Your task to perform on an android device: Search for Mexican restaurants on Maps Image 0: 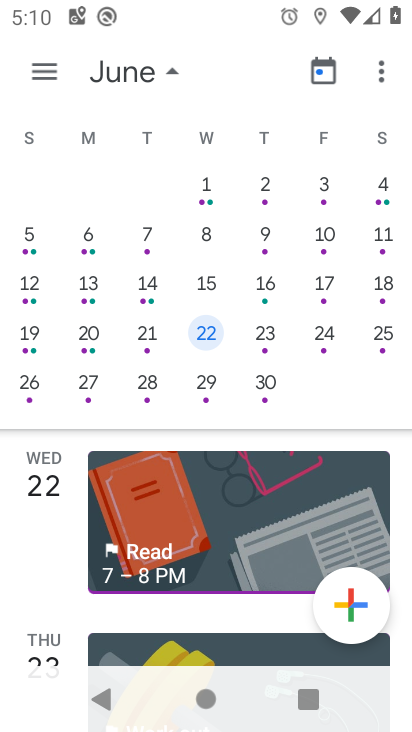
Step 0: press home button
Your task to perform on an android device: Search for Mexican restaurants on Maps Image 1: 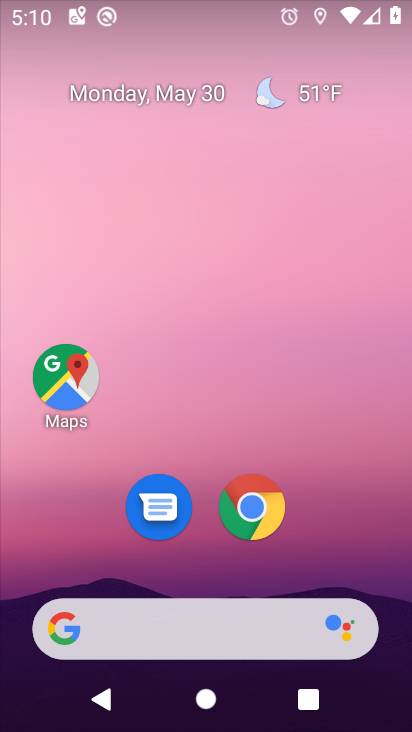
Step 1: click (68, 350)
Your task to perform on an android device: Search for Mexican restaurants on Maps Image 2: 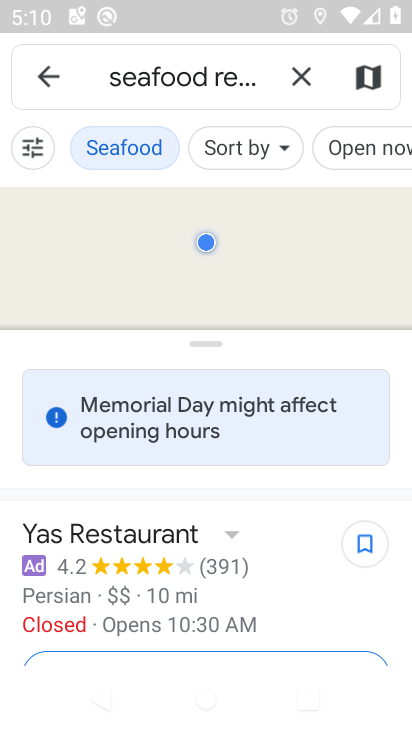
Step 2: click (305, 81)
Your task to perform on an android device: Search for Mexican restaurants on Maps Image 3: 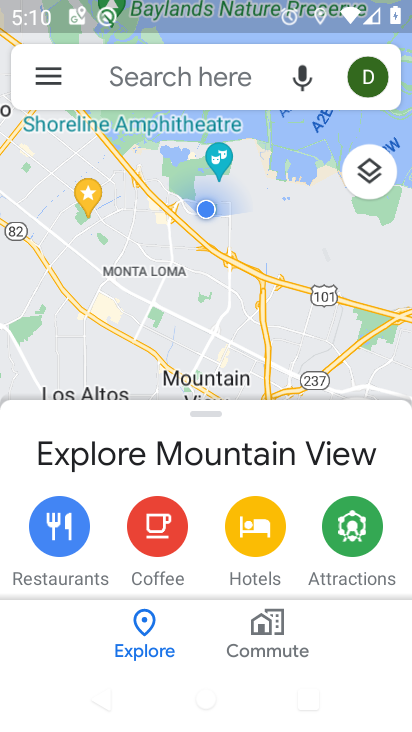
Step 3: click (121, 94)
Your task to perform on an android device: Search for Mexican restaurants on Maps Image 4: 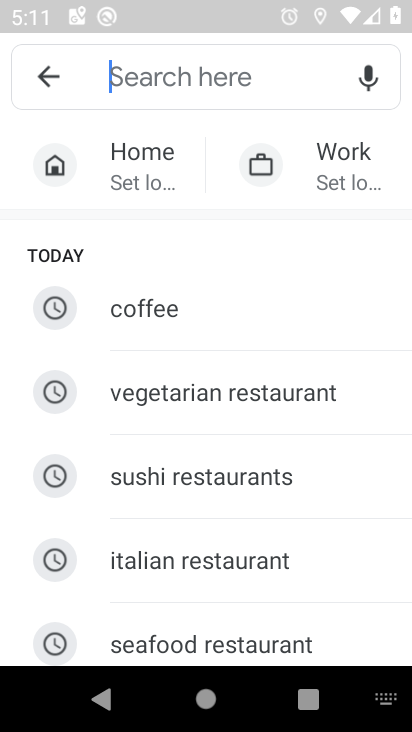
Step 4: type " Mexican restaurants "
Your task to perform on an android device: Search for Mexican restaurants on Maps Image 5: 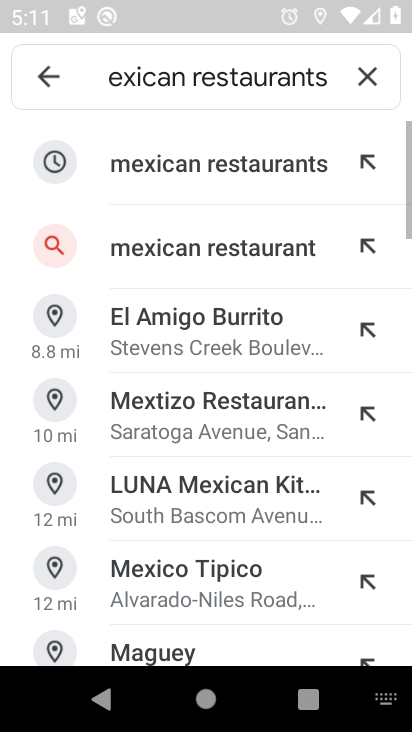
Step 5: click (278, 155)
Your task to perform on an android device: Search for Mexican restaurants on Maps Image 6: 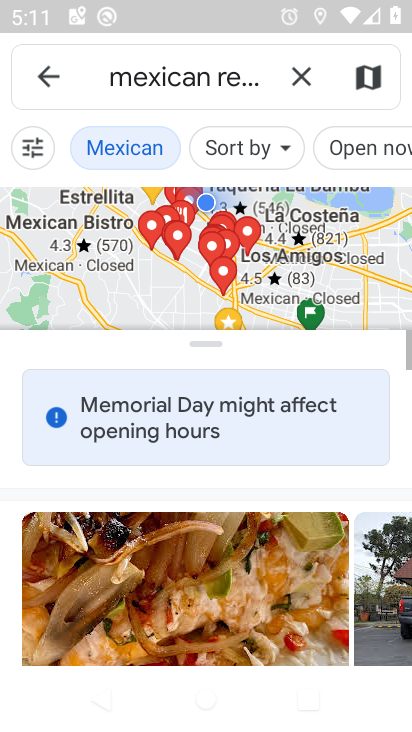
Step 6: task complete